Your task to perform on an android device: open sync settings in chrome Image 0: 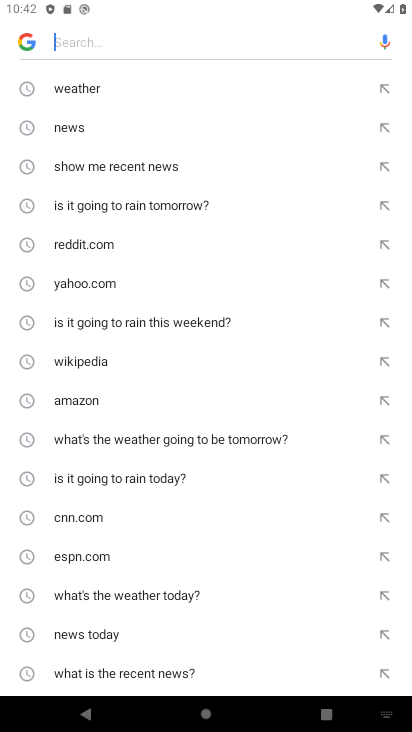
Step 0: press home button
Your task to perform on an android device: open sync settings in chrome Image 1: 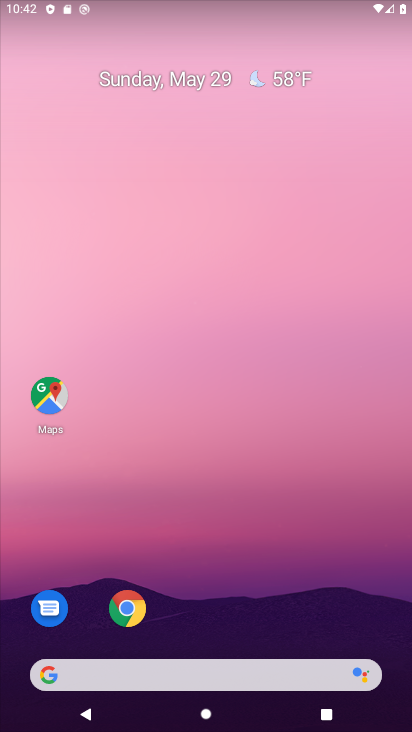
Step 1: click (129, 607)
Your task to perform on an android device: open sync settings in chrome Image 2: 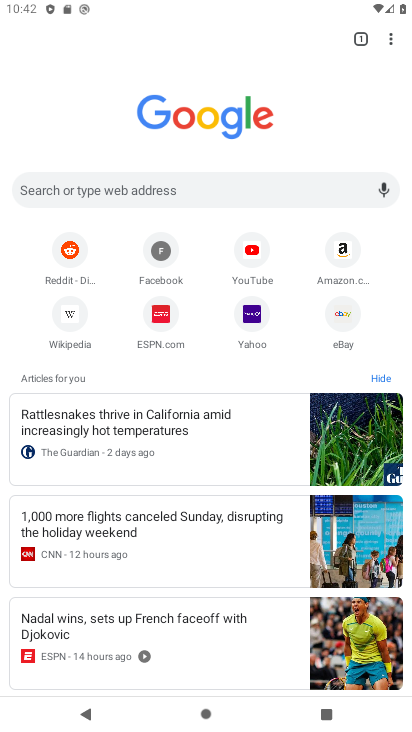
Step 2: click (384, 42)
Your task to perform on an android device: open sync settings in chrome Image 3: 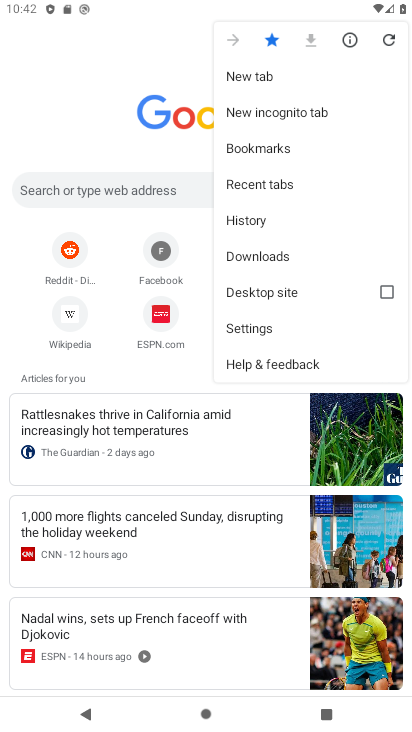
Step 3: click (264, 328)
Your task to perform on an android device: open sync settings in chrome Image 4: 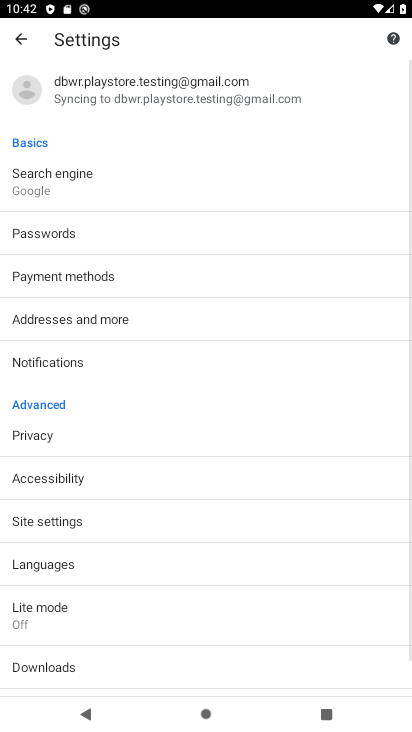
Step 4: click (97, 96)
Your task to perform on an android device: open sync settings in chrome Image 5: 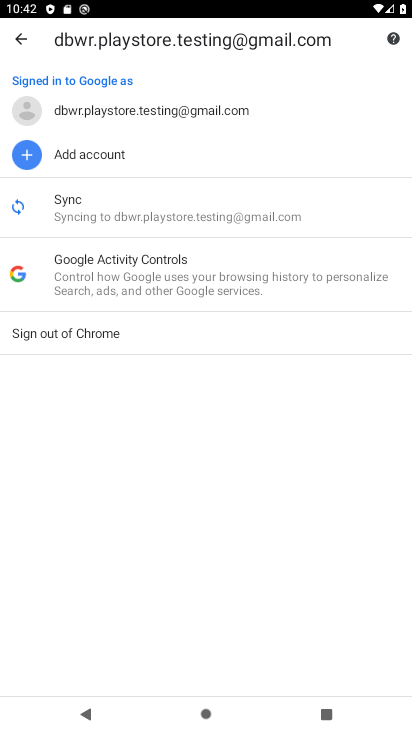
Step 5: click (80, 215)
Your task to perform on an android device: open sync settings in chrome Image 6: 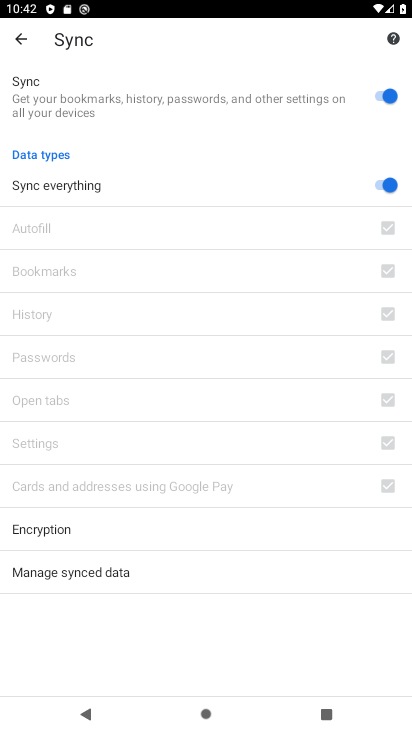
Step 6: task complete